Your task to perform on an android device: Go to sound settings Image 0: 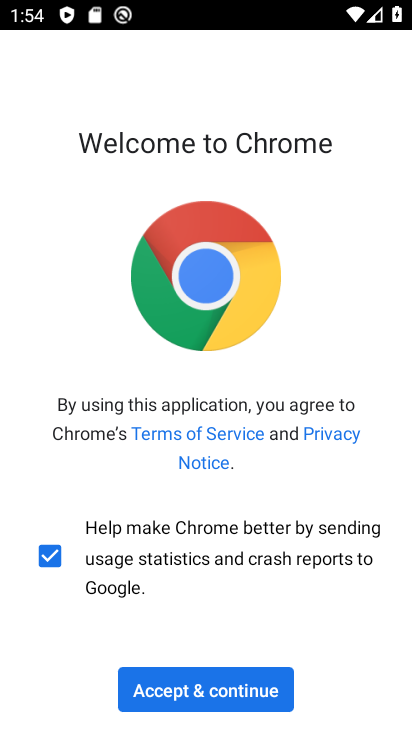
Step 0: press home button
Your task to perform on an android device: Go to sound settings Image 1: 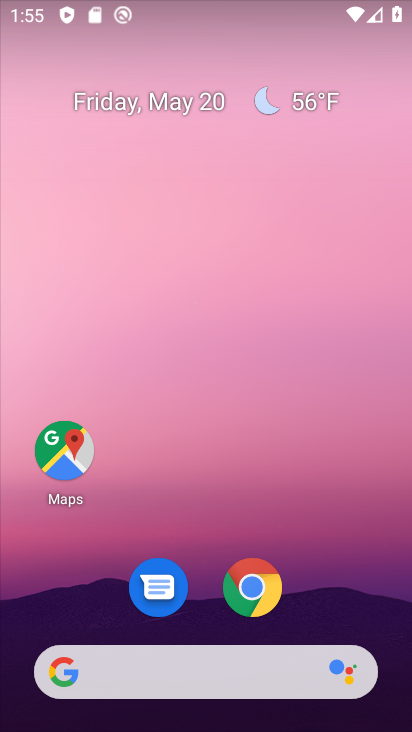
Step 1: drag from (379, 544) to (308, 176)
Your task to perform on an android device: Go to sound settings Image 2: 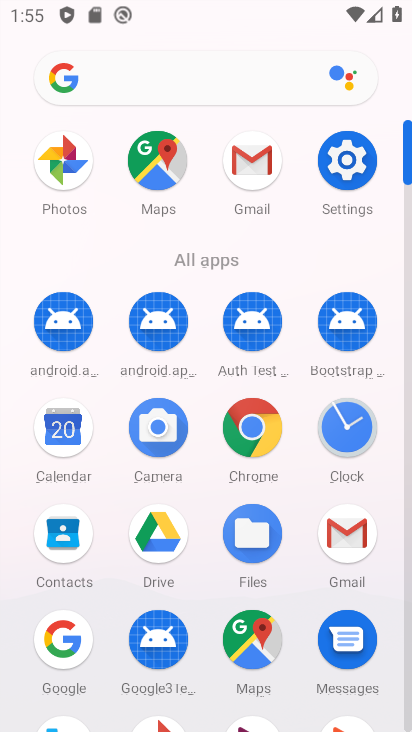
Step 2: click (333, 183)
Your task to perform on an android device: Go to sound settings Image 3: 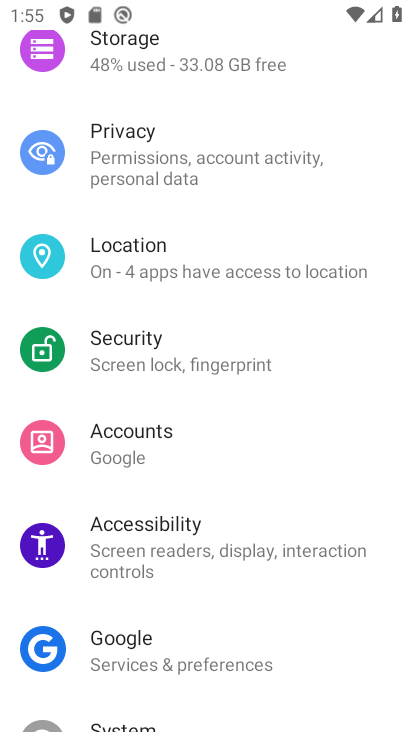
Step 3: drag from (217, 502) to (185, 604)
Your task to perform on an android device: Go to sound settings Image 4: 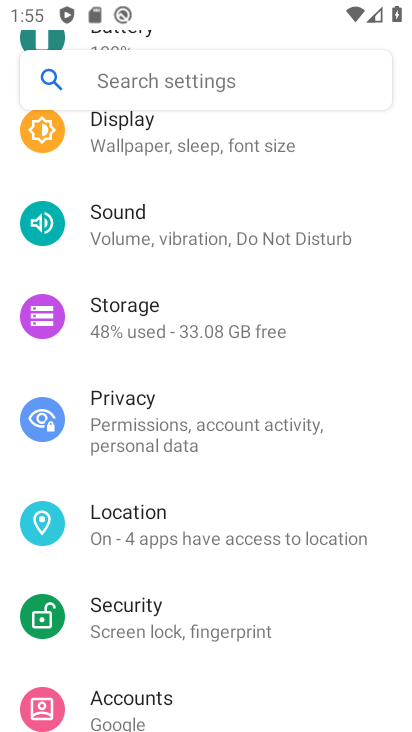
Step 4: click (148, 223)
Your task to perform on an android device: Go to sound settings Image 5: 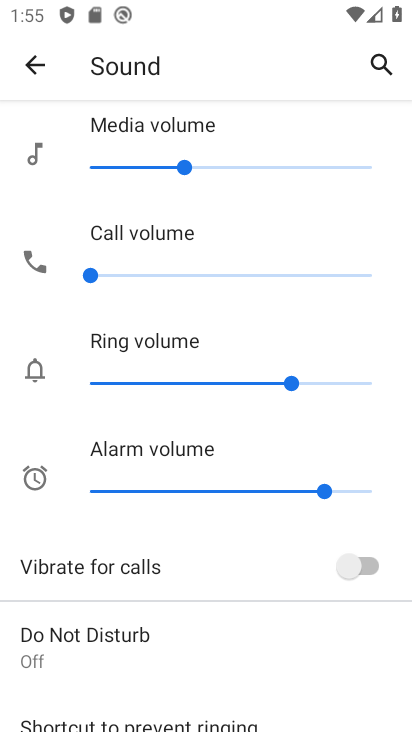
Step 5: task complete